Your task to perform on an android device: Open eBay Image 0: 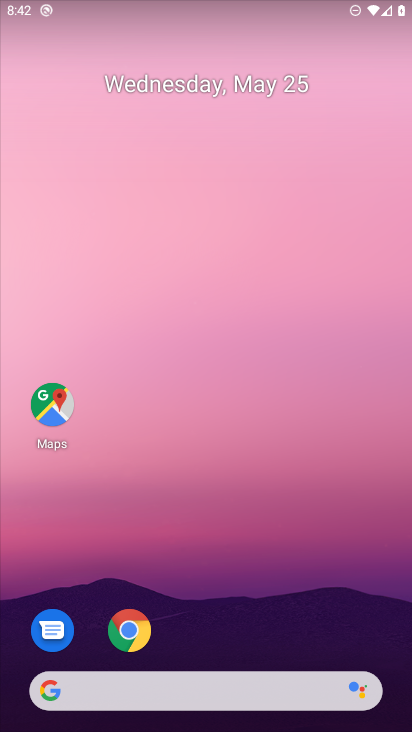
Step 0: click (132, 631)
Your task to perform on an android device: Open eBay Image 1: 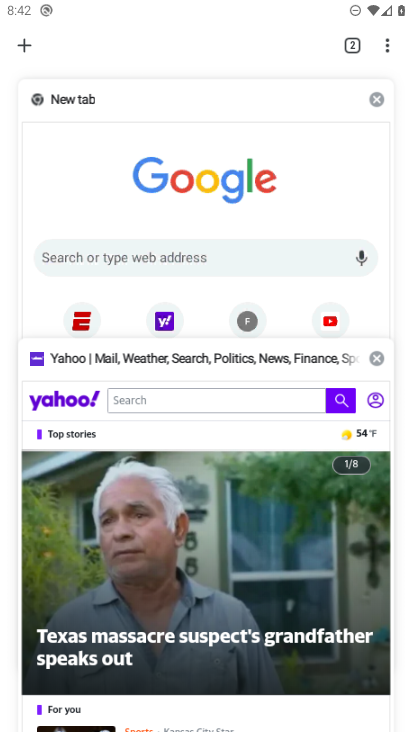
Step 1: click (353, 45)
Your task to perform on an android device: Open eBay Image 2: 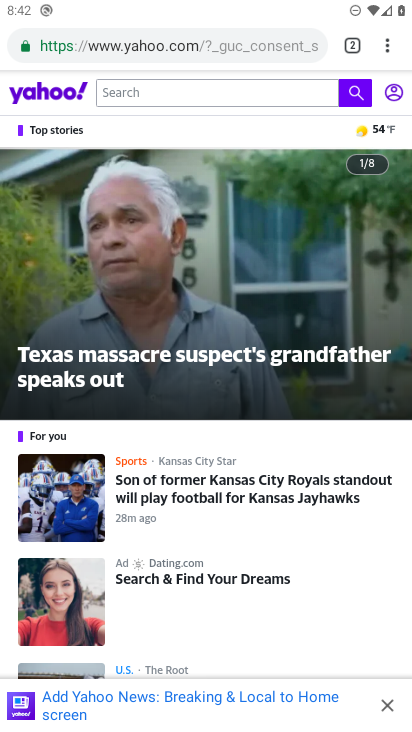
Step 2: click (349, 45)
Your task to perform on an android device: Open eBay Image 3: 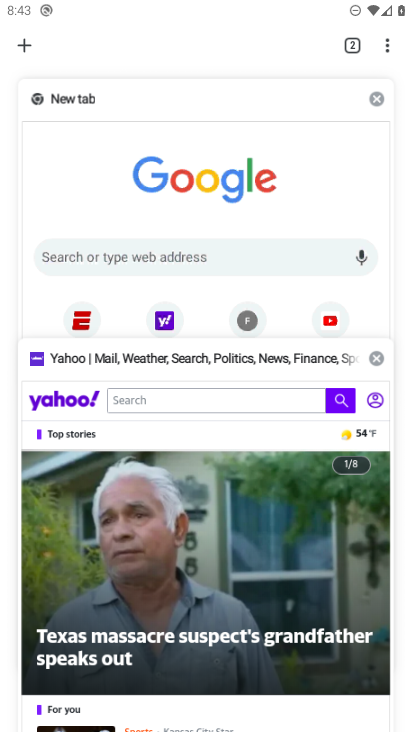
Step 3: click (379, 358)
Your task to perform on an android device: Open eBay Image 4: 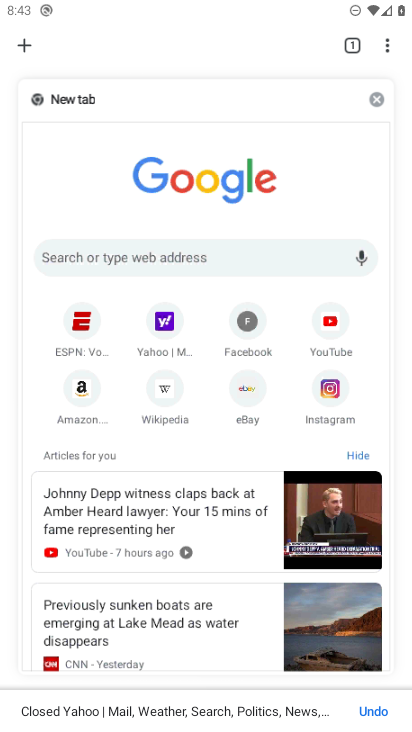
Step 4: click (377, 100)
Your task to perform on an android device: Open eBay Image 5: 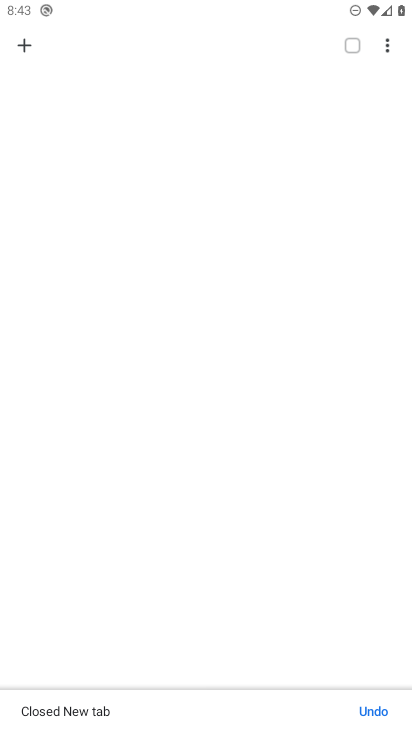
Step 5: click (25, 49)
Your task to perform on an android device: Open eBay Image 6: 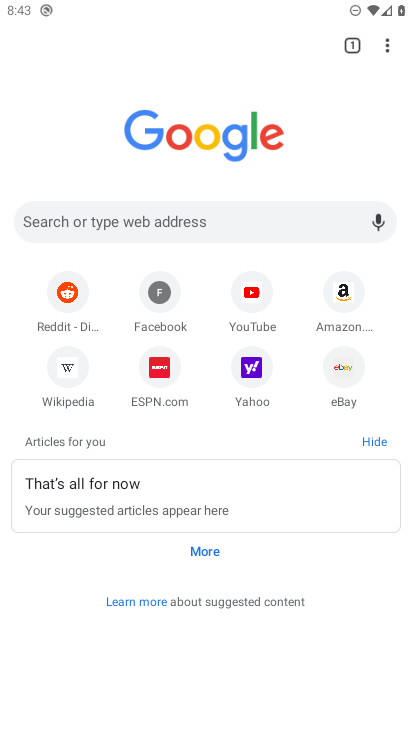
Step 6: click (341, 365)
Your task to perform on an android device: Open eBay Image 7: 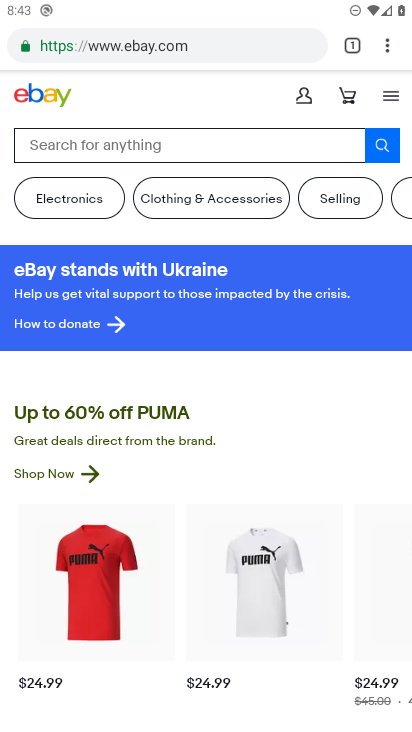
Step 7: task complete